Your task to perform on an android device: open app "DoorDash - Dasher" Image 0: 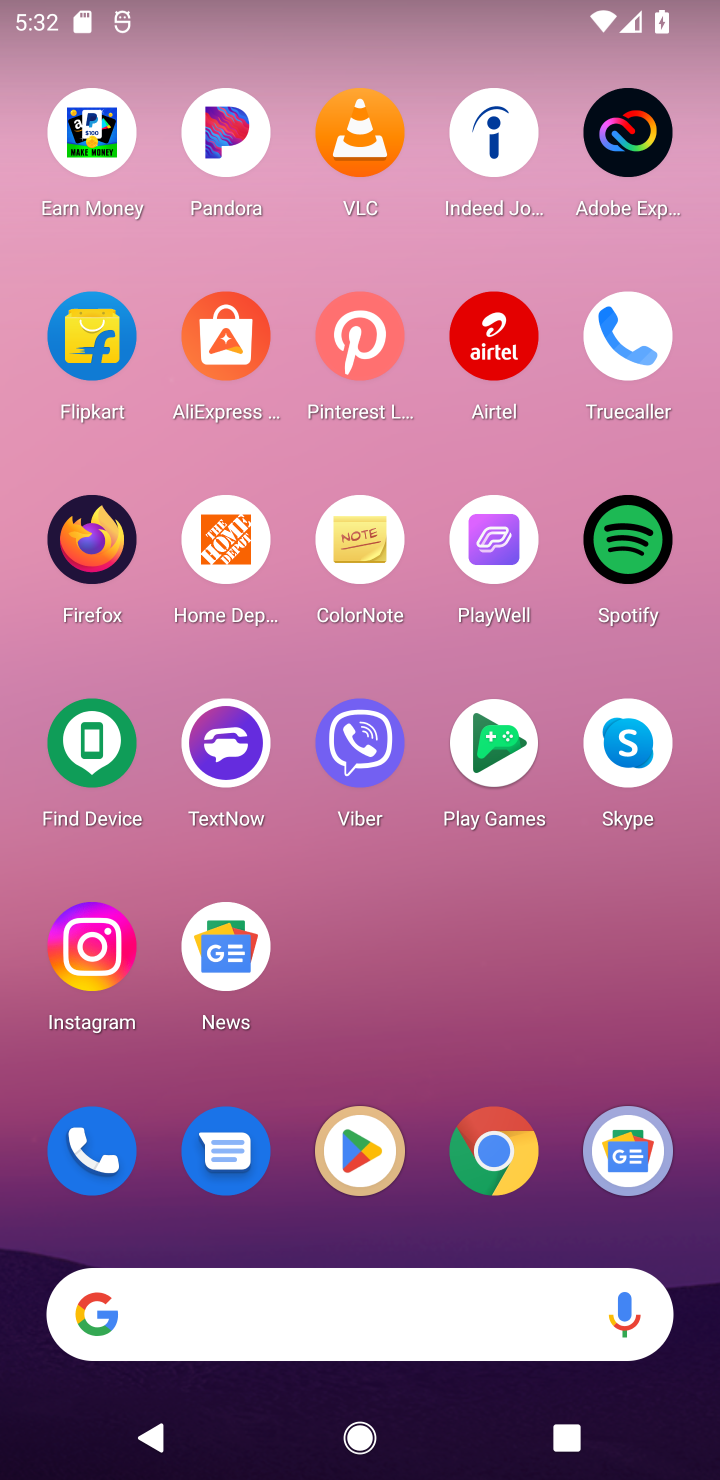
Step 0: click (369, 1171)
Your task to perform on an android device: open app "DoorDash - Dasher" Image 1: 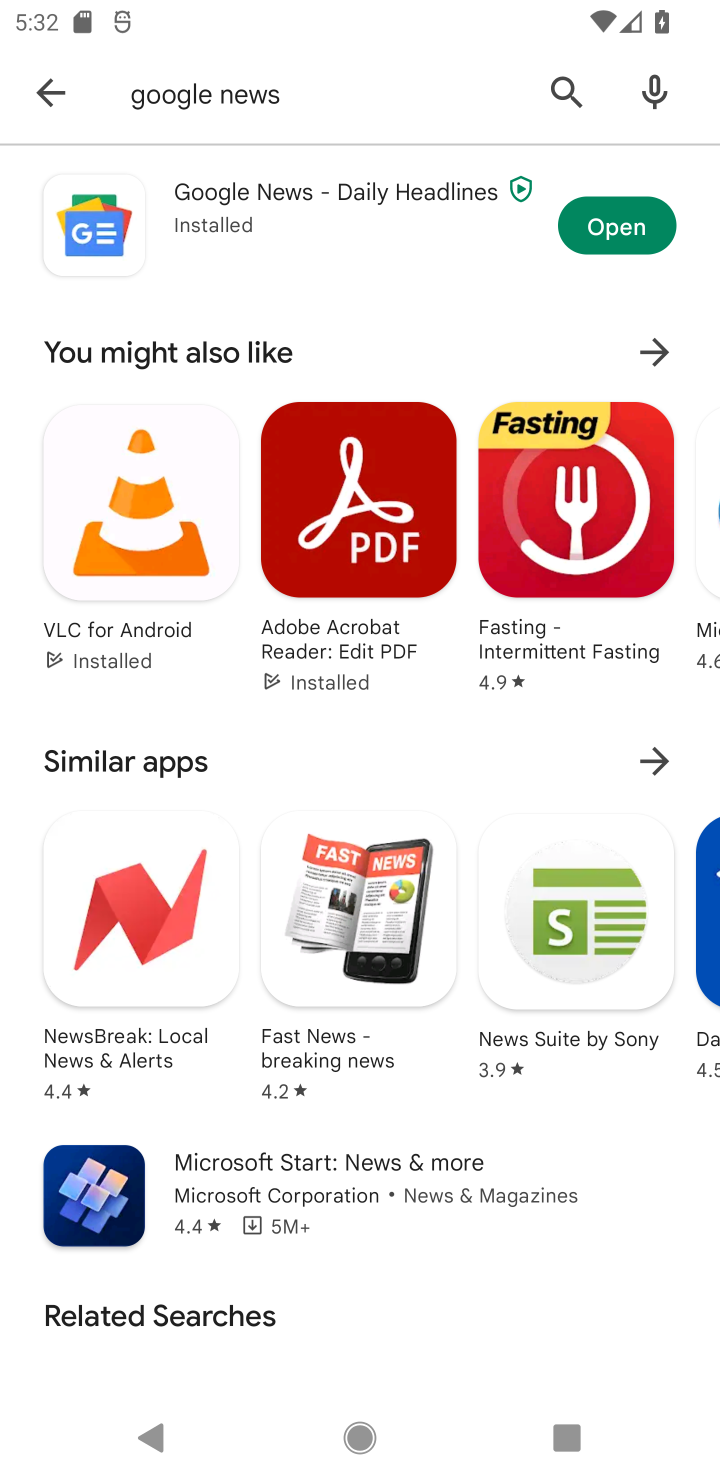
Step 1: click (575, 88)
Your task to perform on an android device: open app "DoorDash - Dasher" Image 2: 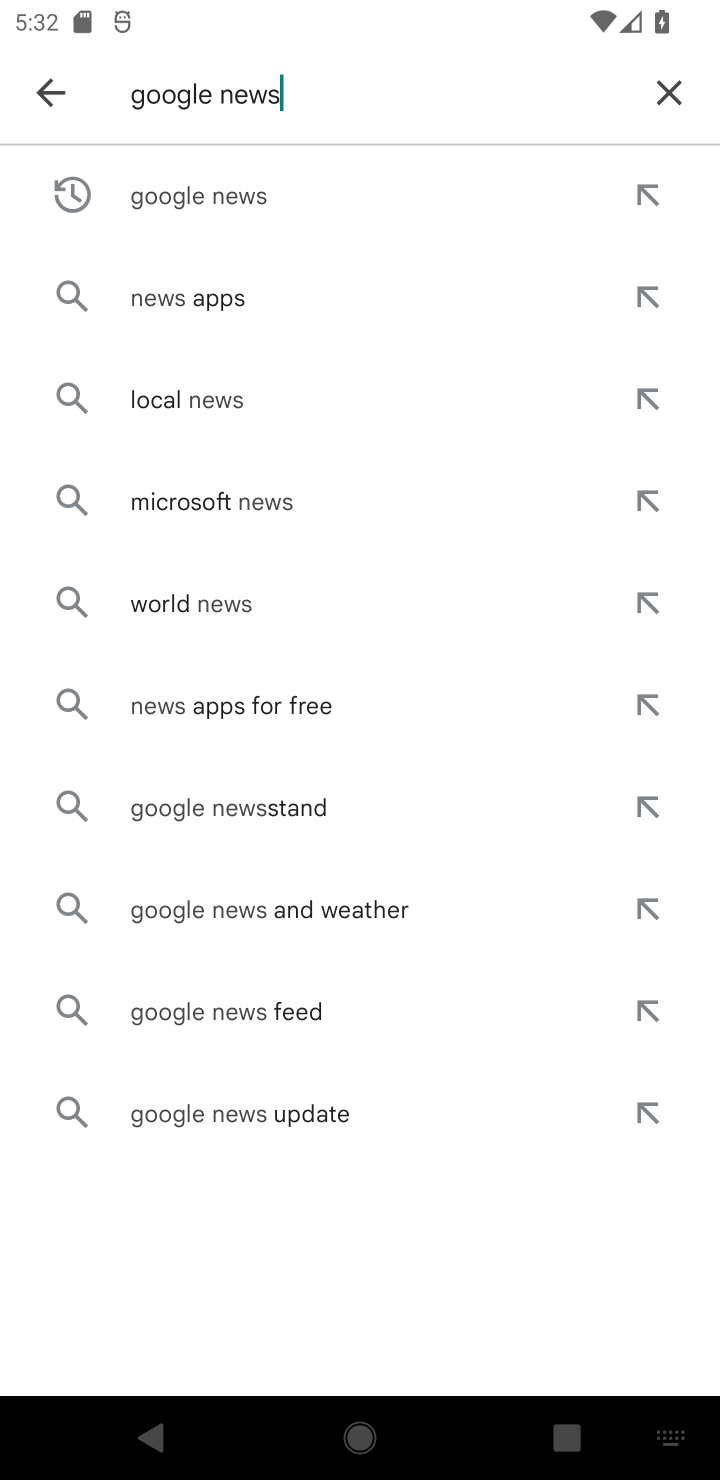
Step 2: click (655, 90)
Your task to perform on an android device: open app "DoorDash - Dasher" Image 3: 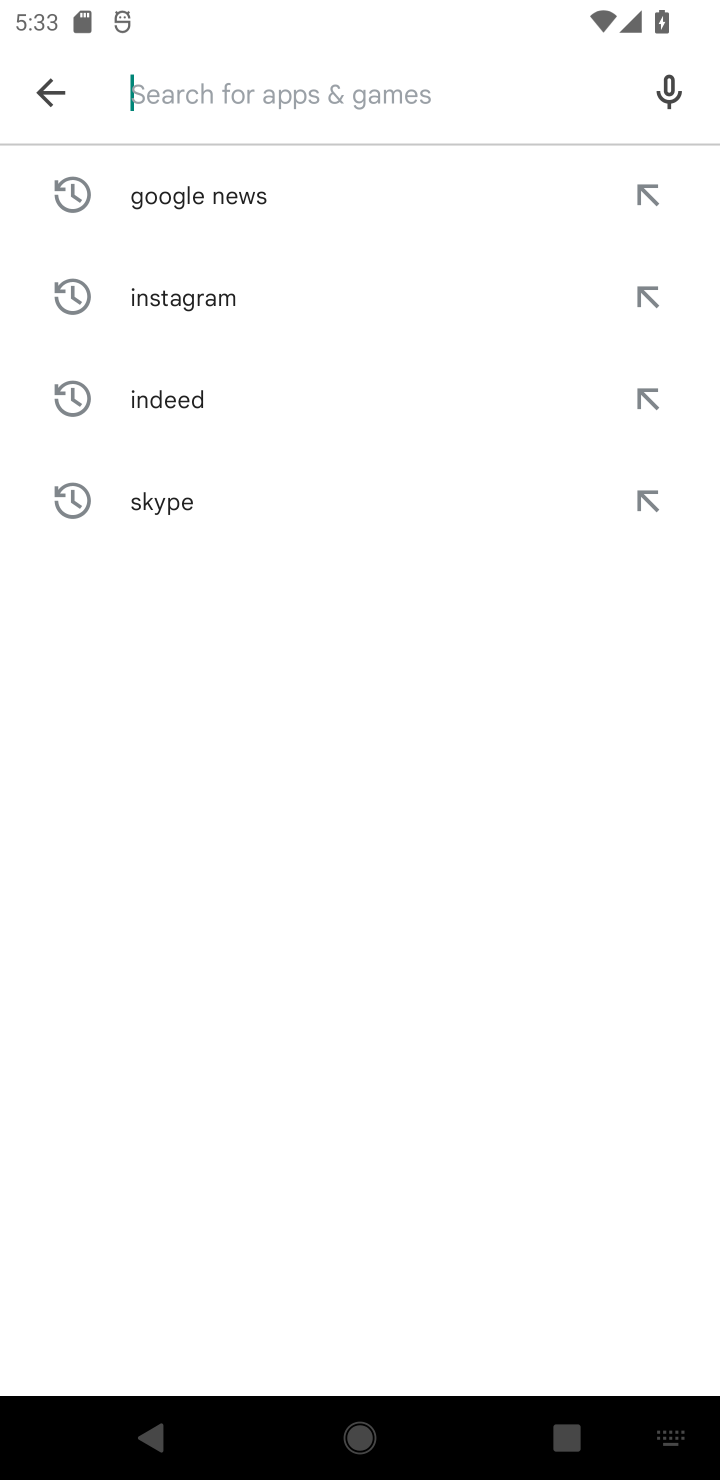
Step 3: type "door dash"
Your task to perform on an android device: open app "DoorDash - Dasher" Image 4: 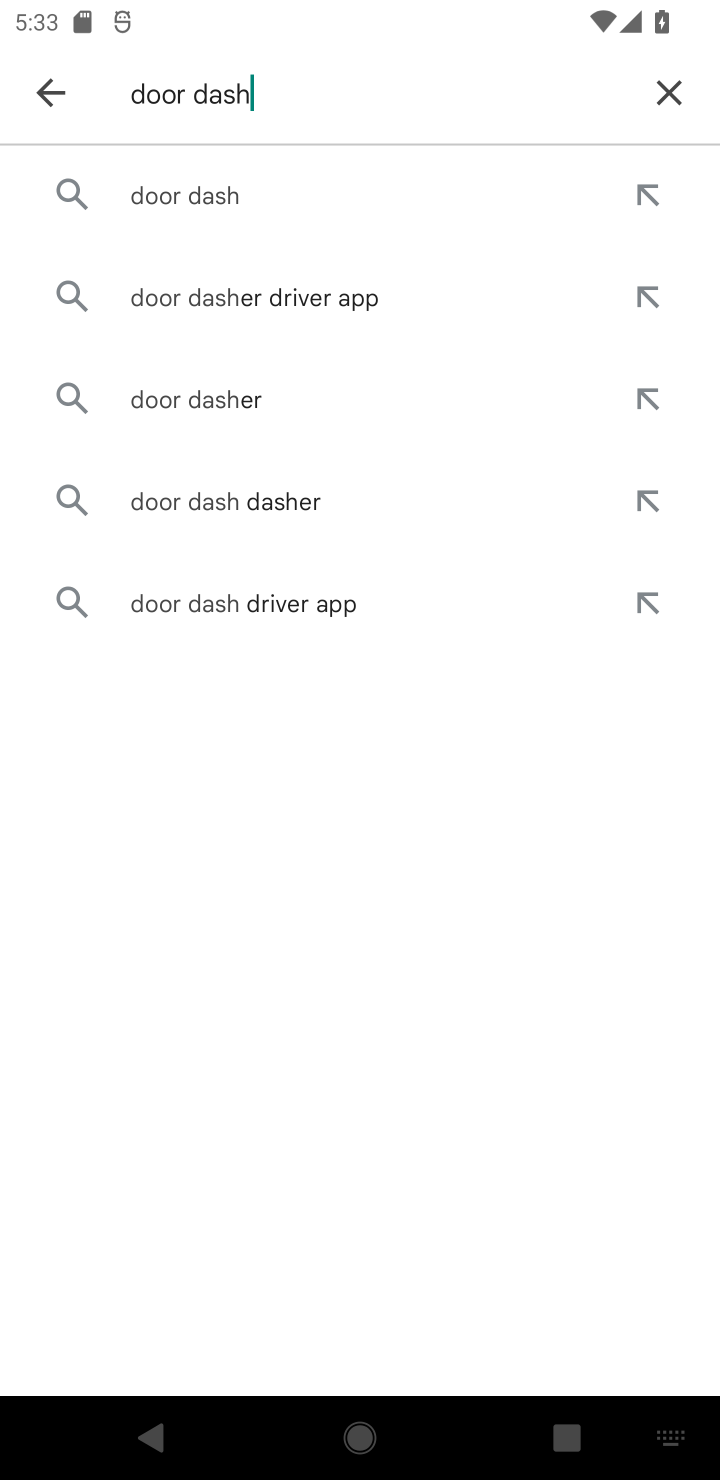
Step 4: click (202, 176)
Your task to perform on an android device: open app "DoorDash - Dasher" Image 5: 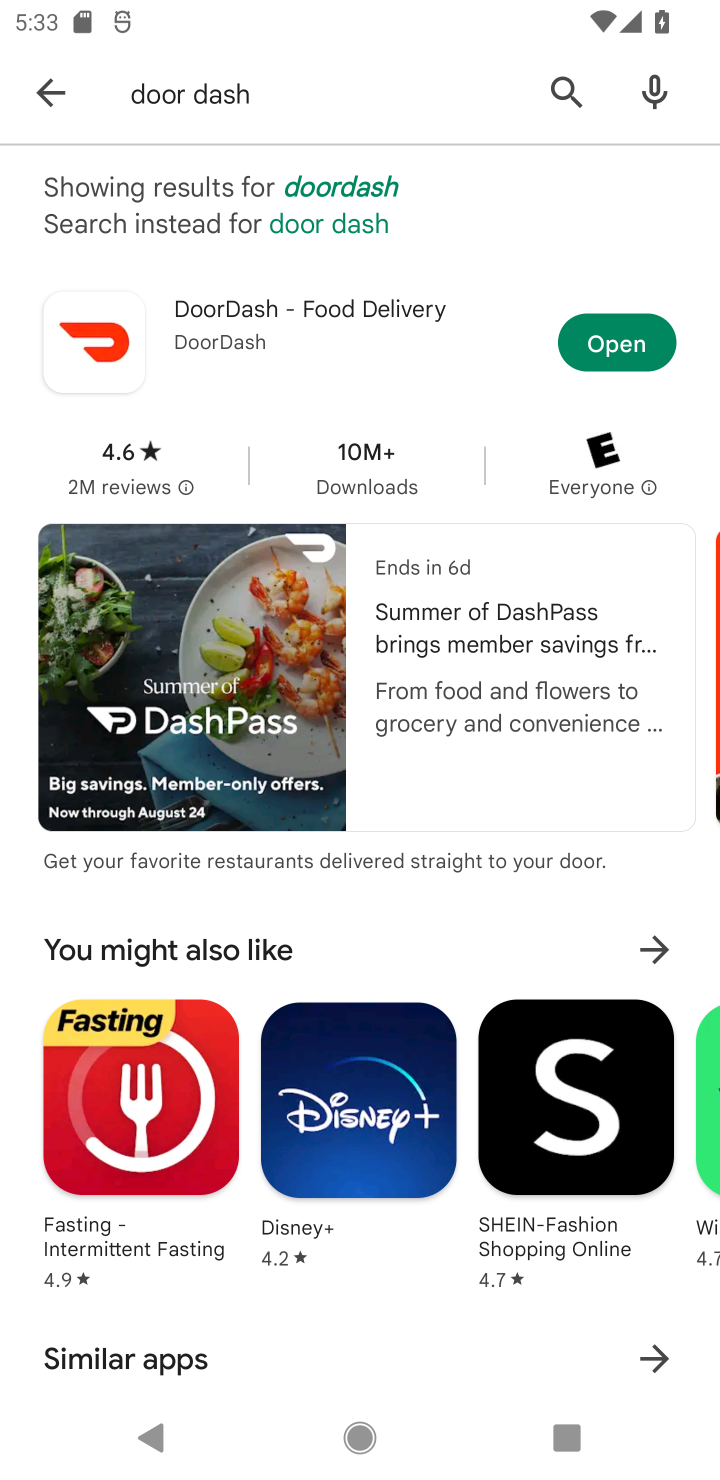
Step 5: click (646, 343)
Your task to perform on an android device: open app "DoorDash - Dasher" Image 6: 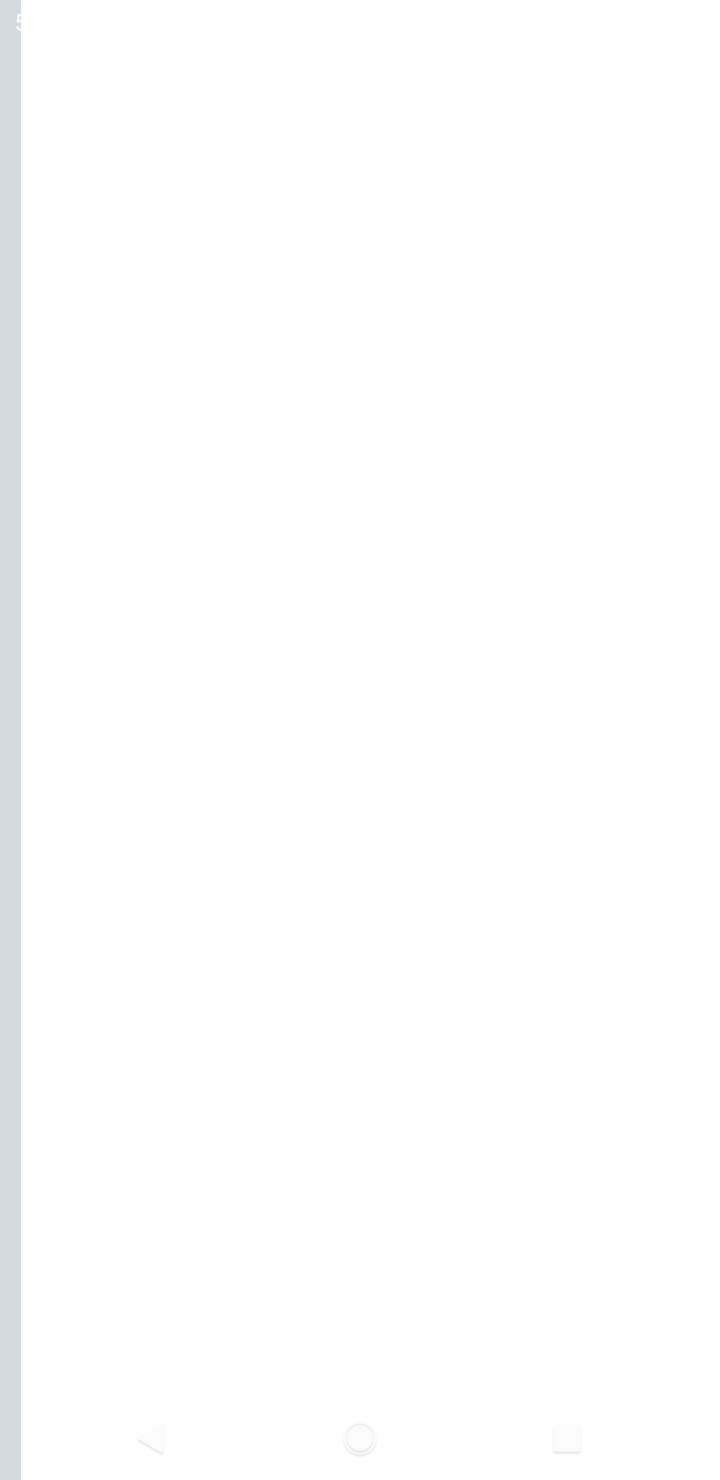
Step 6: task complete